Your task to perform on an android device: Open the web browser Image 0: 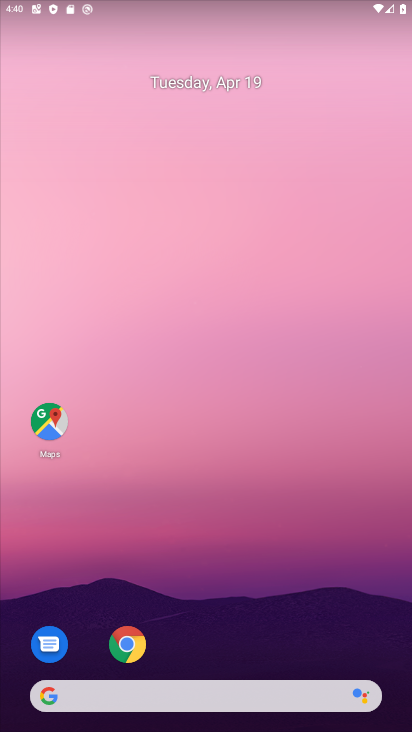
Step 0: drag from (342, 527) to (358, 262)
Your task to perform on an android device: Open the web browser Image 1: 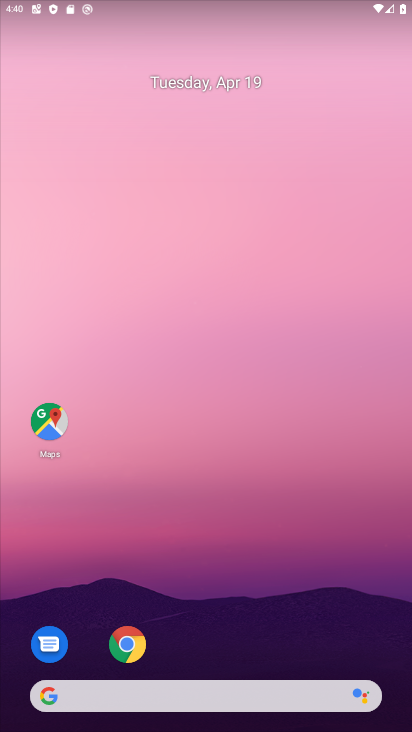
Step 1: drag from (325, 619) to (280, 653)
Your task to perform on an android device: Open the web browser Image 2: 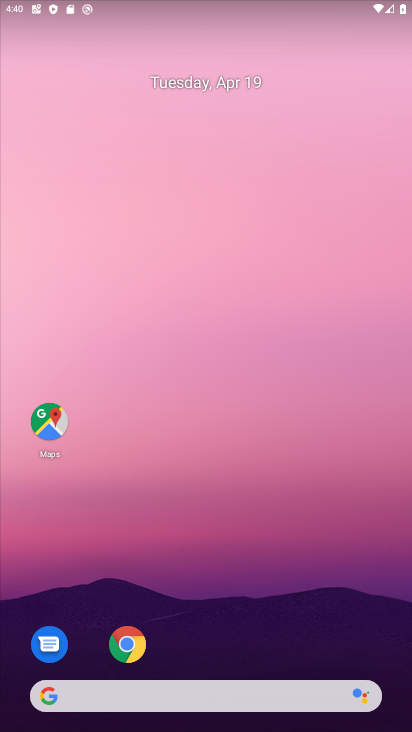
Step 2: click (142, 640)
Your task to perform on an android device: Open the web browser Image 3: 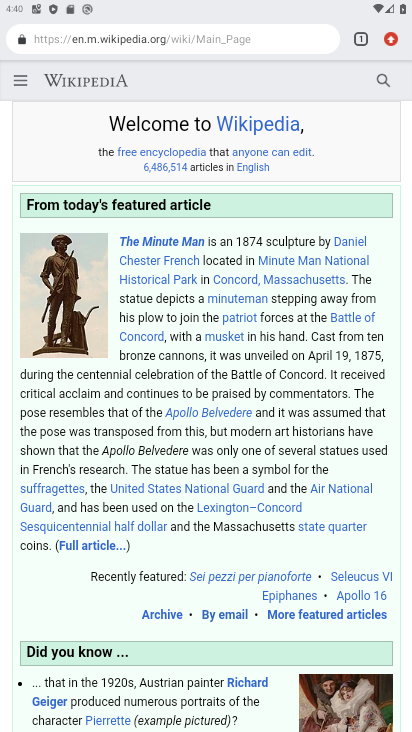
Step 3: task complete